Your task to perform on an android device: open app "The Home Depot" (install if not already installed) Image 0: 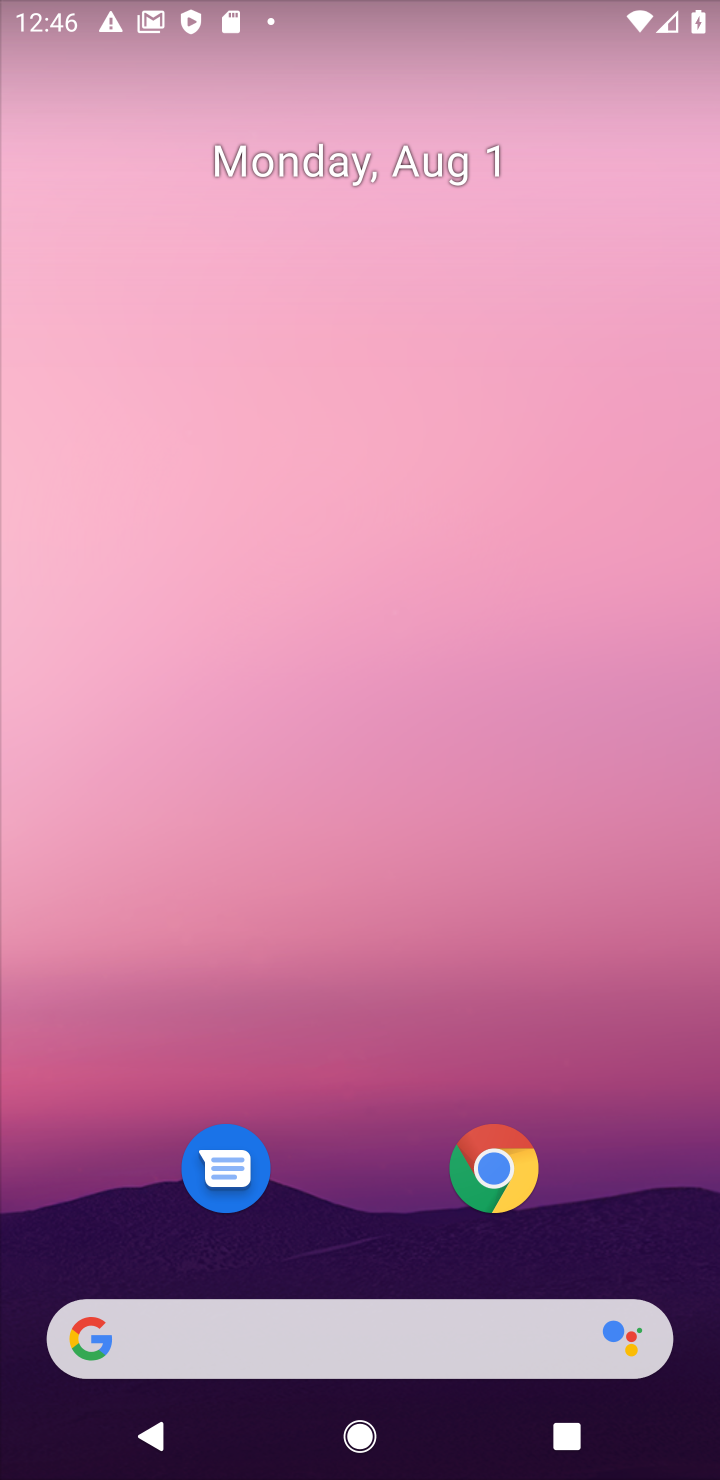
Step 0: press home button
Your task to perform on an android device: open app "The Home Depot" (install if not already installed) Image 1: 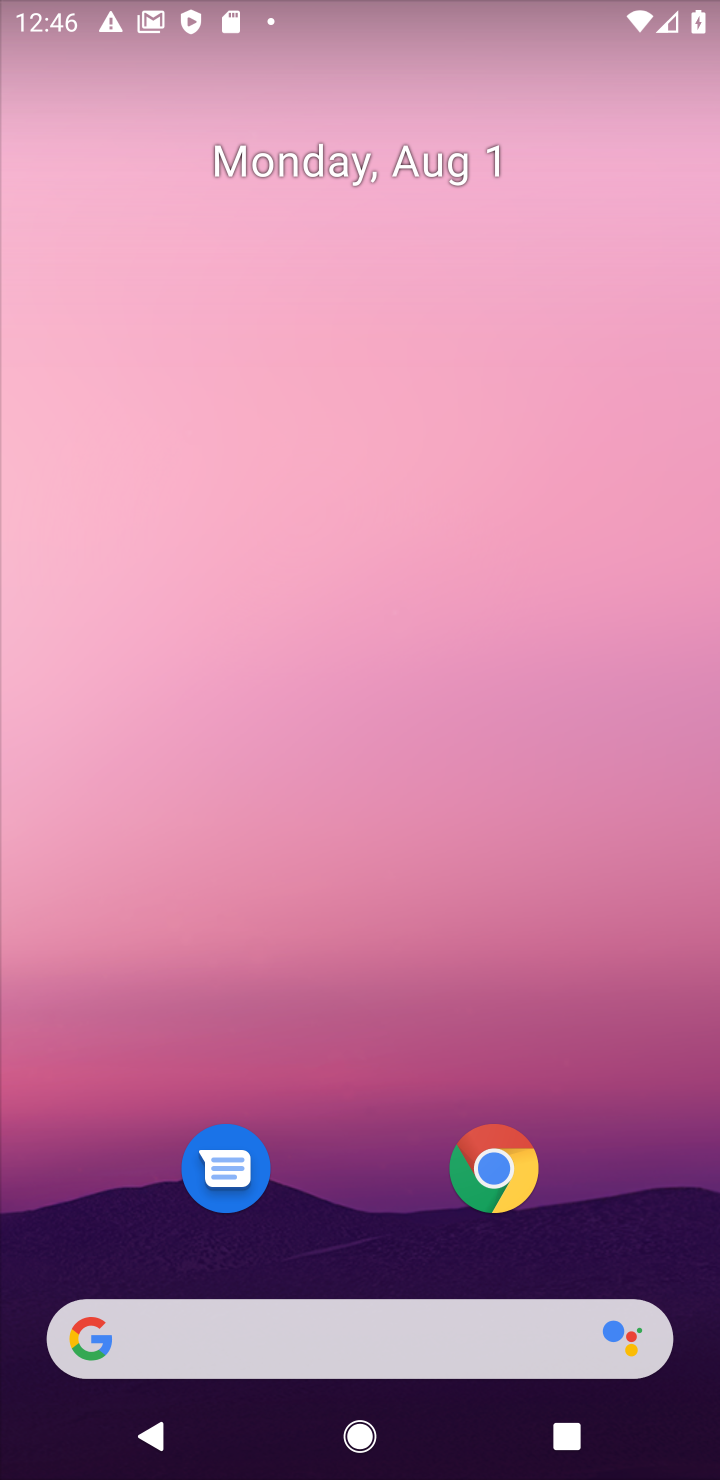
Step 1: drag from (427, 558) to (450, 154)
Your task to perform on an android device: open app "The Home Depot" (install if not already installed) Image 2: 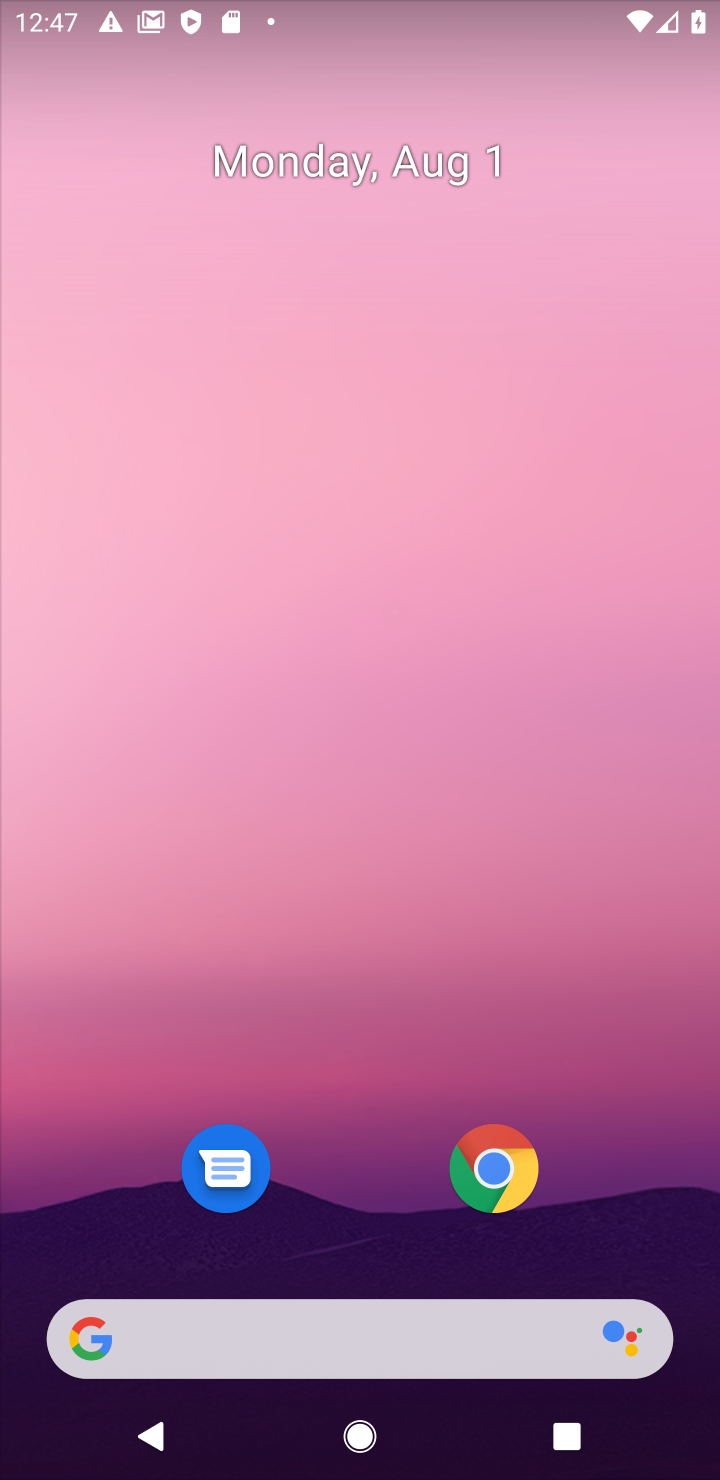
Step 2: drag from (372, 1064) to (363, 12)
Your task to perform on an android device: open app "The Home Depot" (install if not already installed) Image 3: 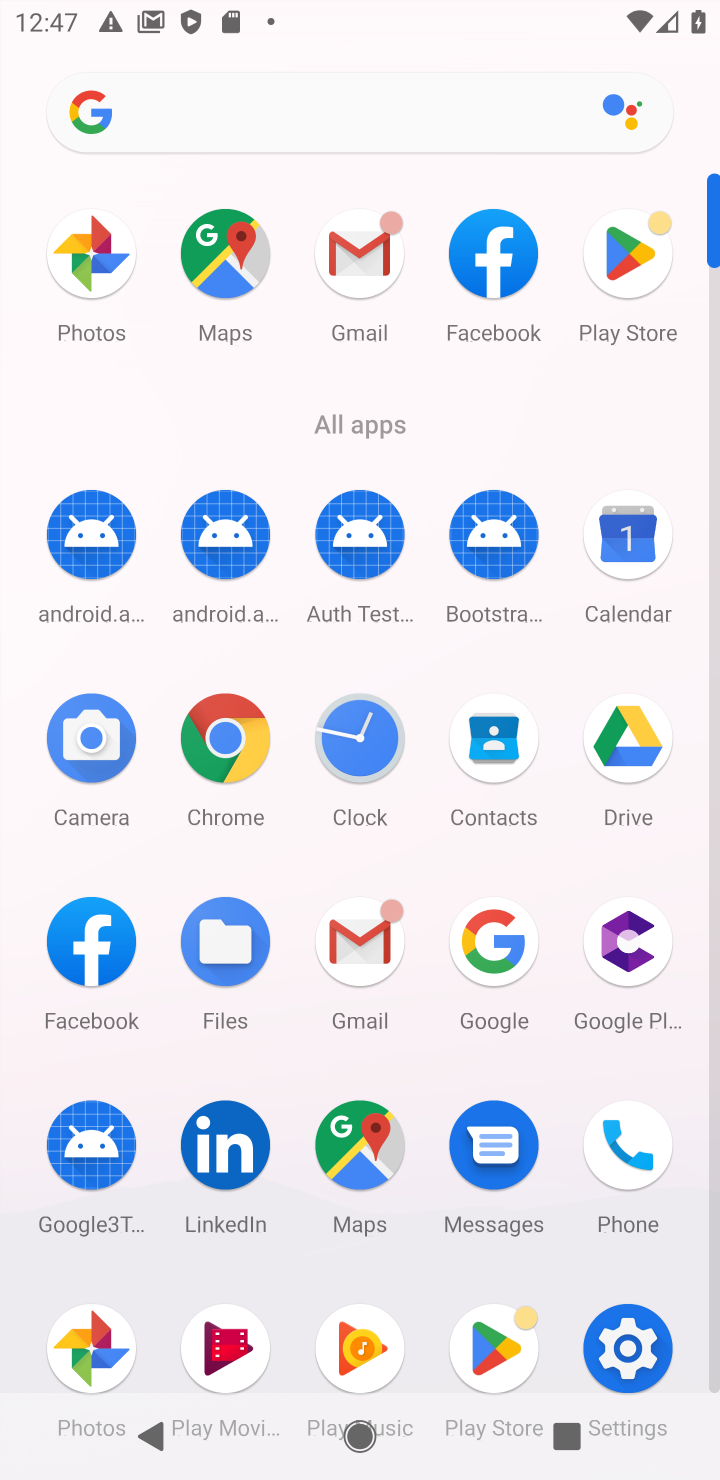
Step 3: click (637, 261)
Your task to perform on an android device: open app "The Home Depot" (install if not already installed) Image 4: 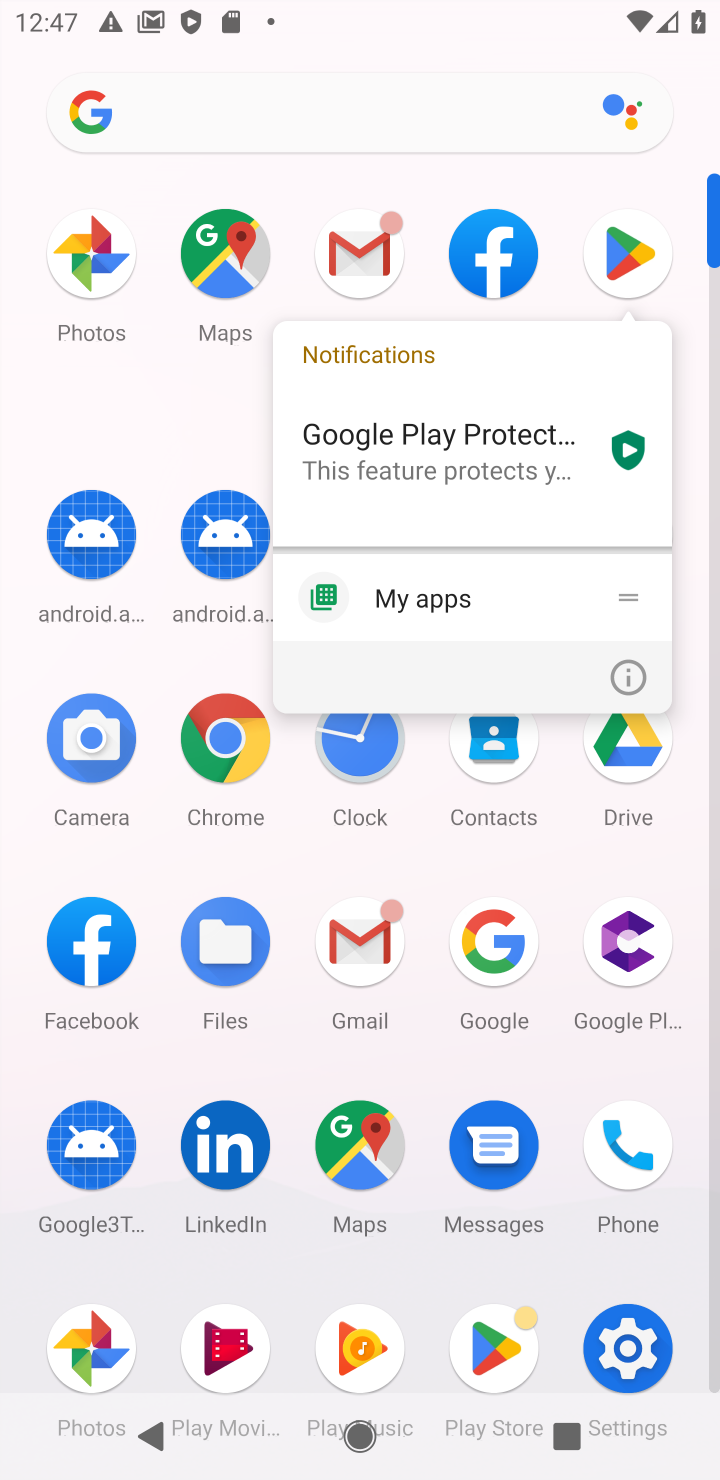
Step 4: click (633, 264)
Your task to perform on an android device: open app "The Home Depot" (install if not already installed) Image 5: 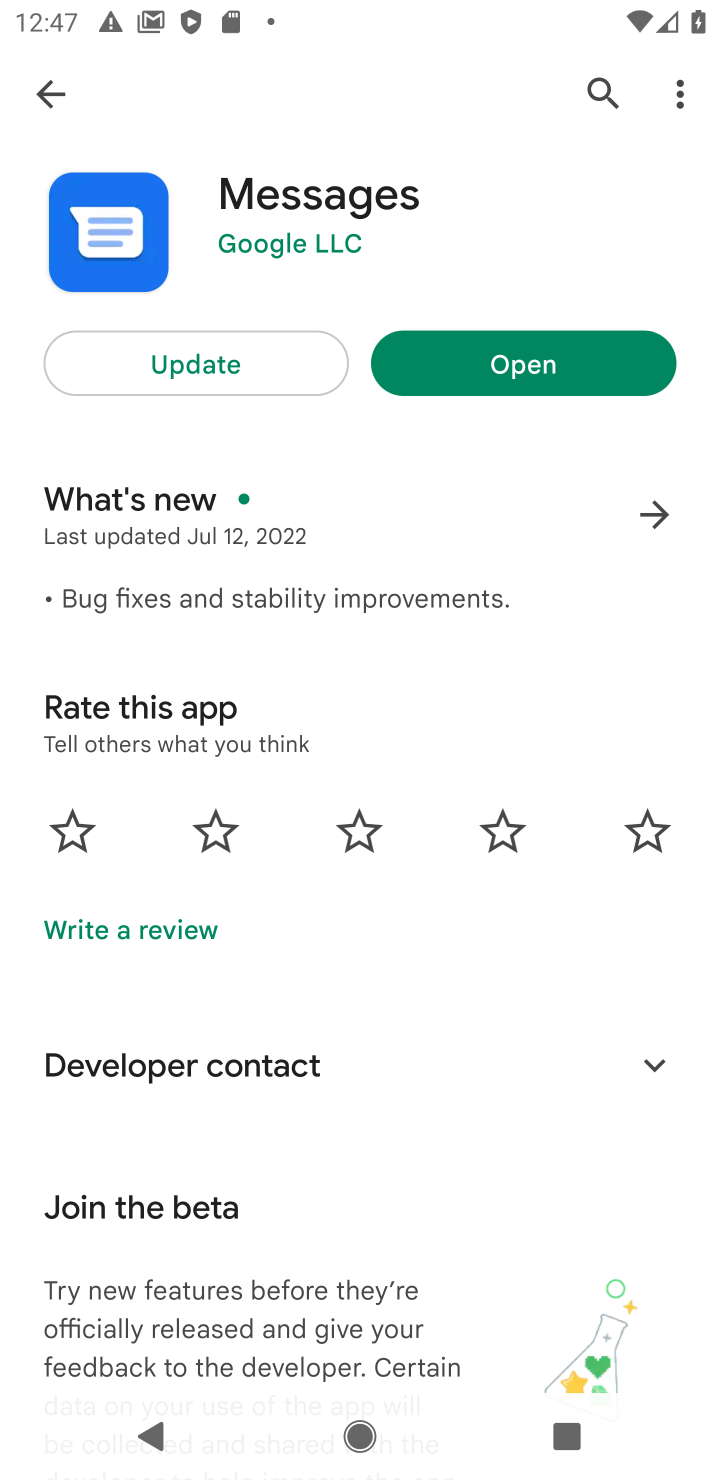
Step 5: click (604, 92)
Your task to perform on an android device: open app "The Home Depot" (install if not already installed) Image 6: 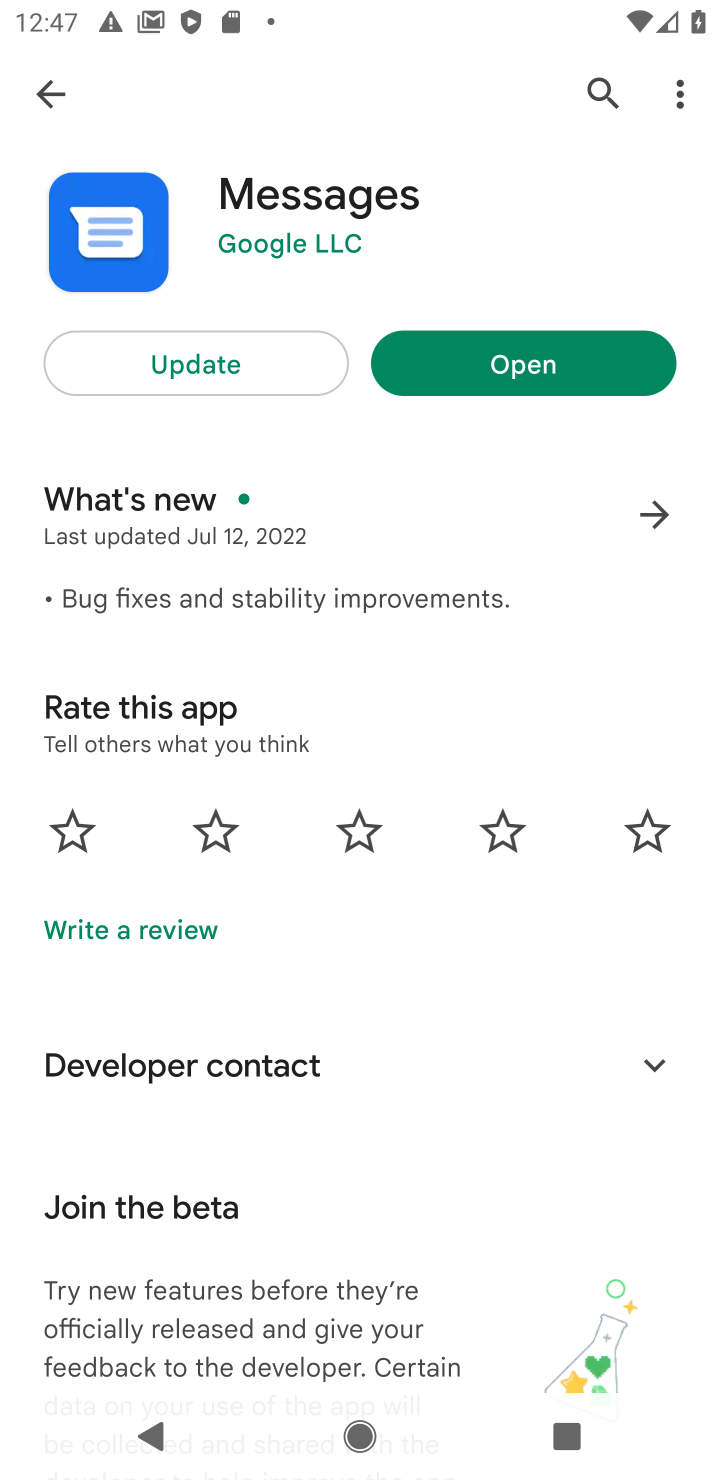
Step 6: click (595, 80)
Your task to perform on an android device: open app "The Home Depot" (install if not already installed) Image 7: 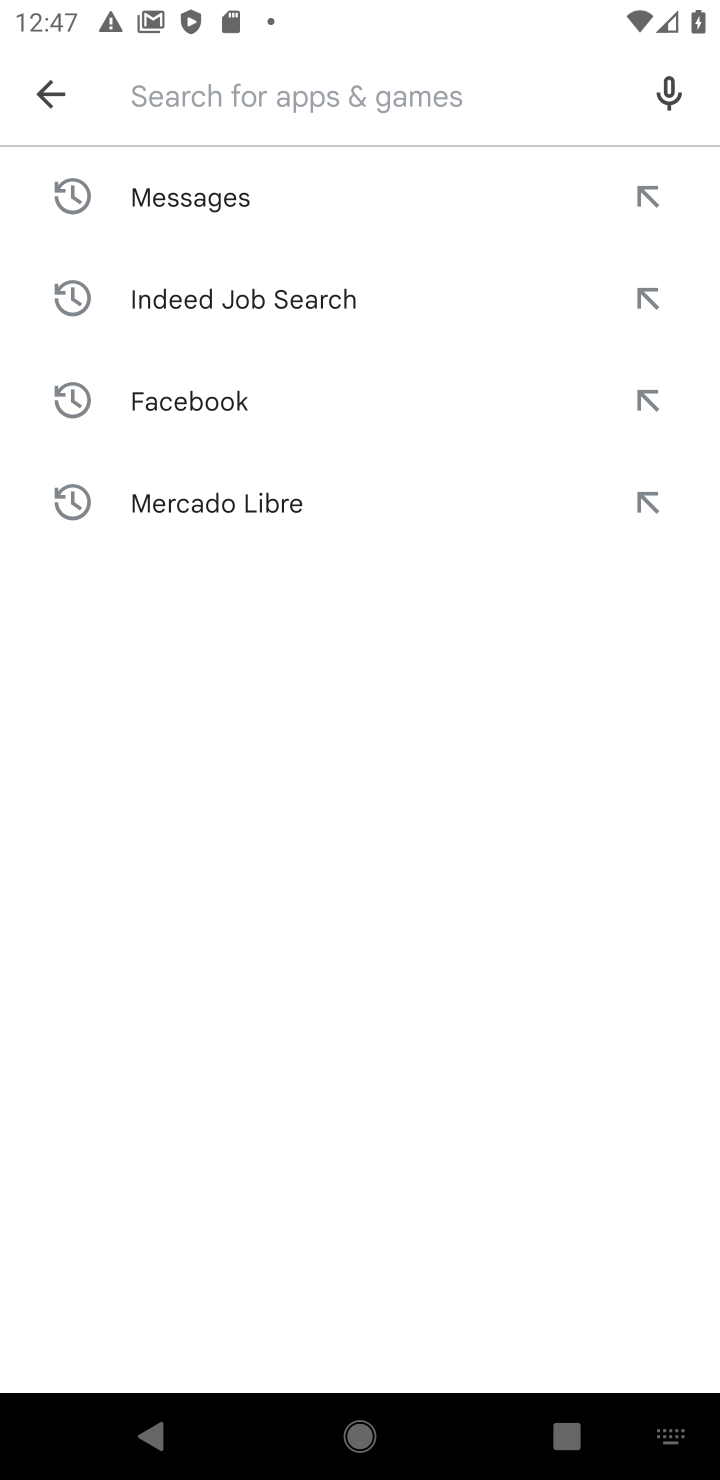
Step 7: type "The Home Depot"
Your task to perform on an android device: open app "The Home Depot" (install if not already installed) Image 8: 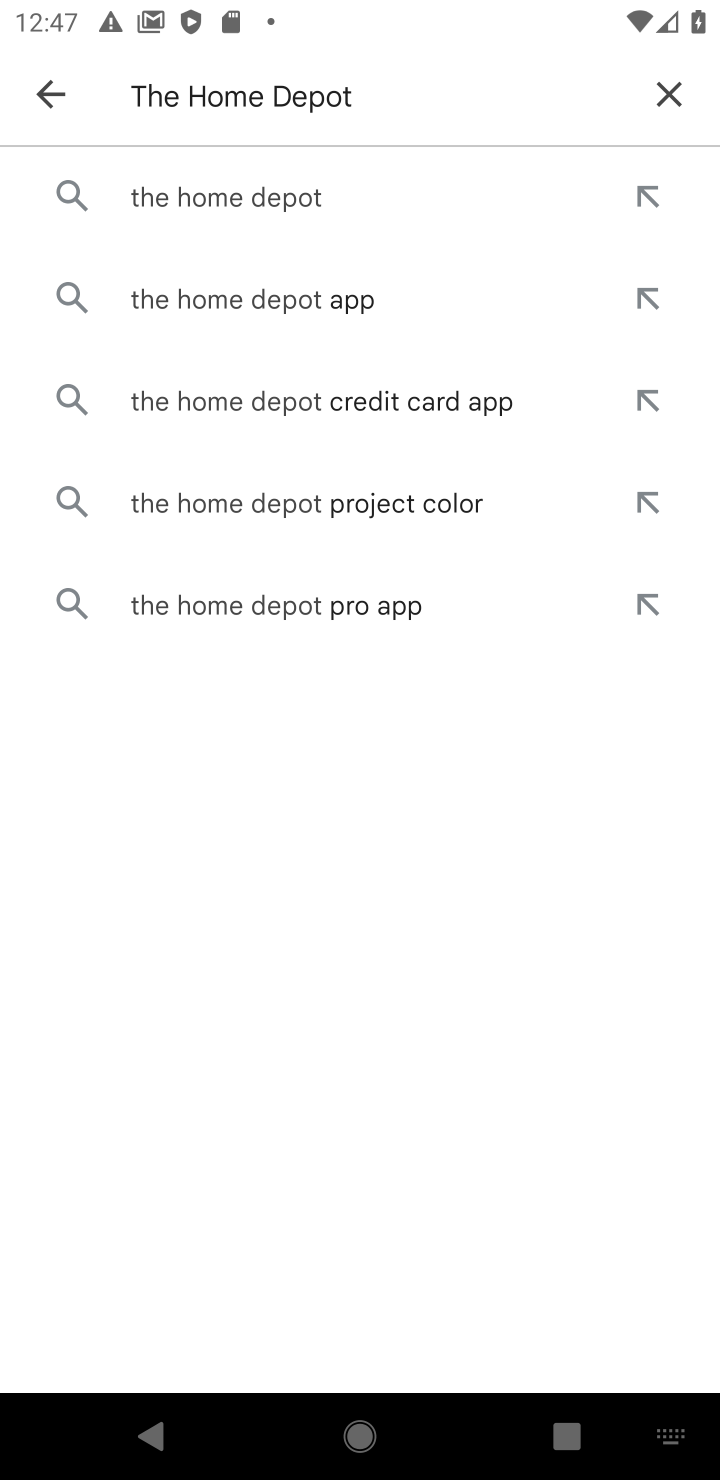
Step 8: type ""
Your task to perform on an android device: open app "The Home Depot" (install if not already installed) Image 9: 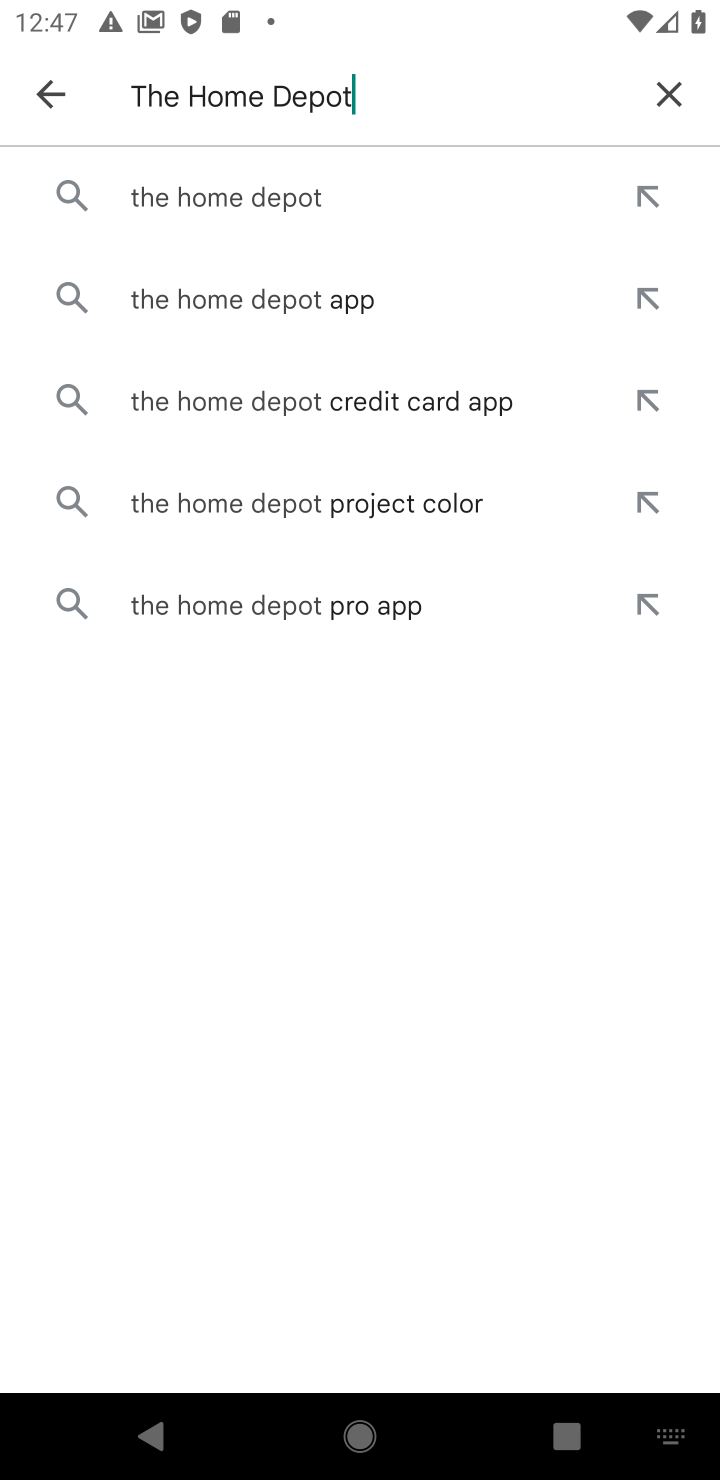
Step 9: press enter
Your task to perform on an android device: open app "The Home Depot" (install if not already installed) Image 10: 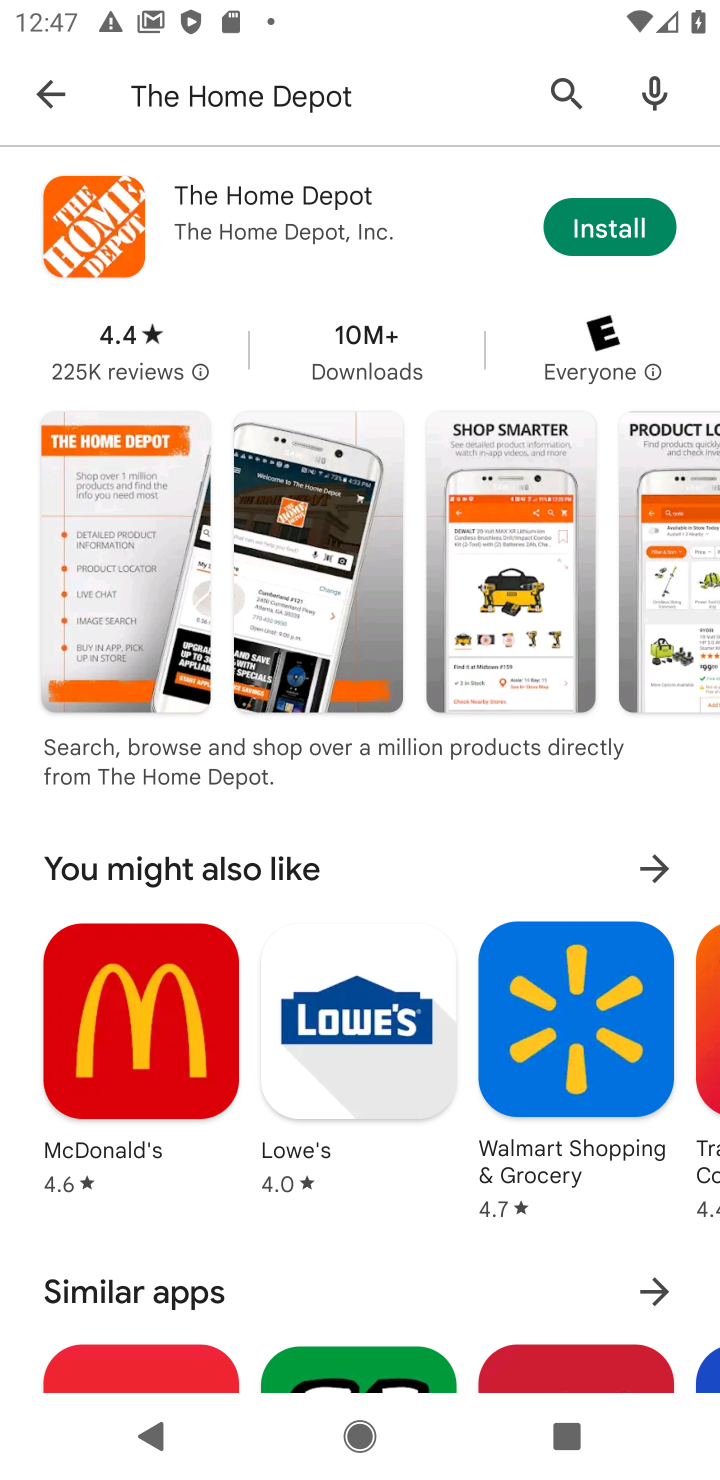
Step 10: click (615, 230)
Your task to perform on an android device: open app "The Home Depot" (install if not already installed) Image 11: 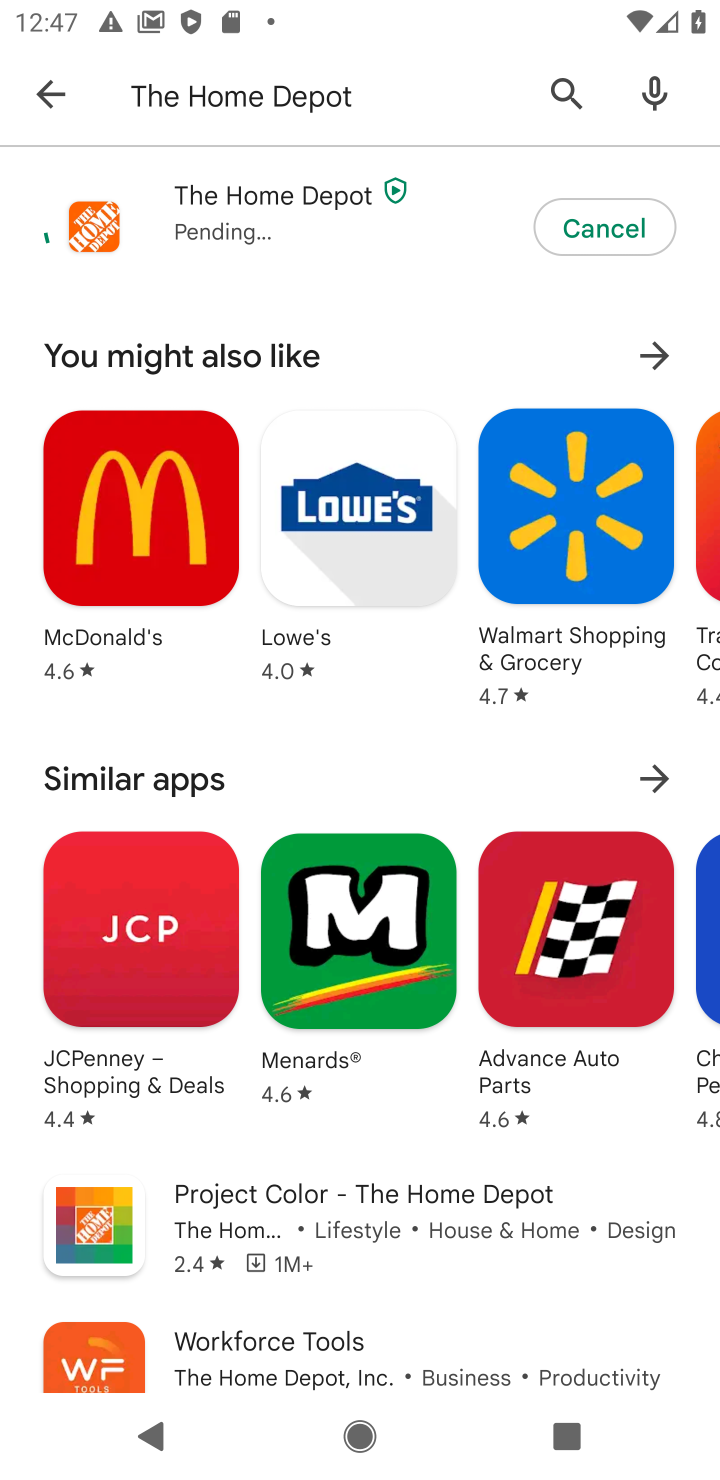
Step 11: task complete